Your task to perform on an android device: toggle data saver in the chrome app Image 0: 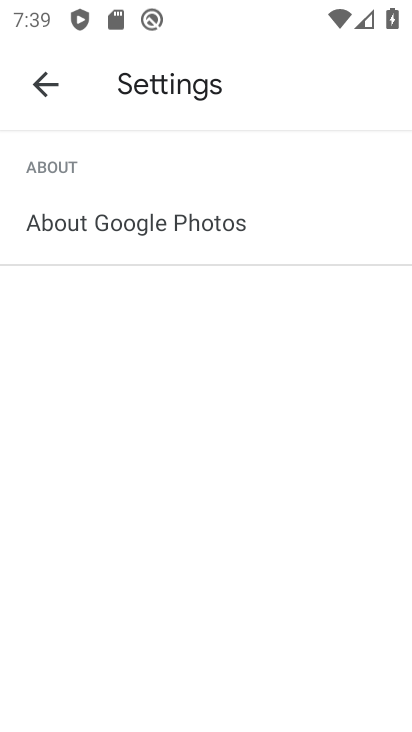
Step 0: press home button
Your task to perform on an android device: toggle data saver in the chrome app Image 1: 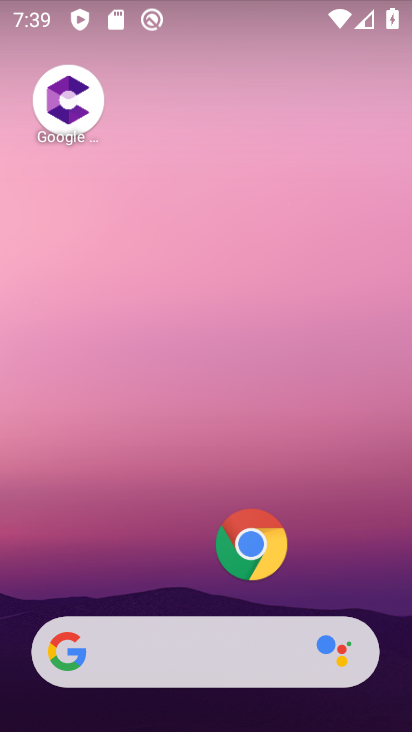
Step 1: click (253, 566)
Your task to perform on an android device: toggle data saver in the chrome app Image 2: 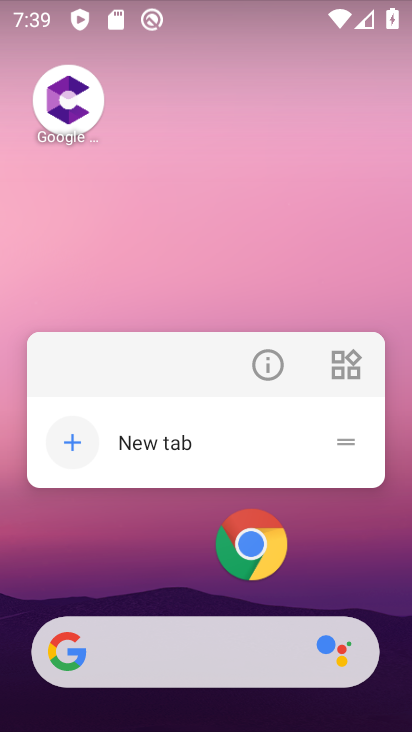
Step 2: click (249, 531)
Your task to perform on an android device: toggle data saver in the chrome app Image 3: 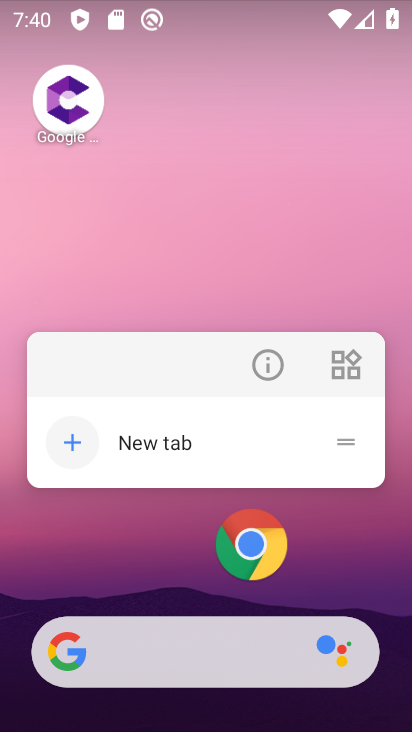
Step 3: click (248, 543)
Your task to perform on an android device: toggle data saver in the chrome app Image 4: 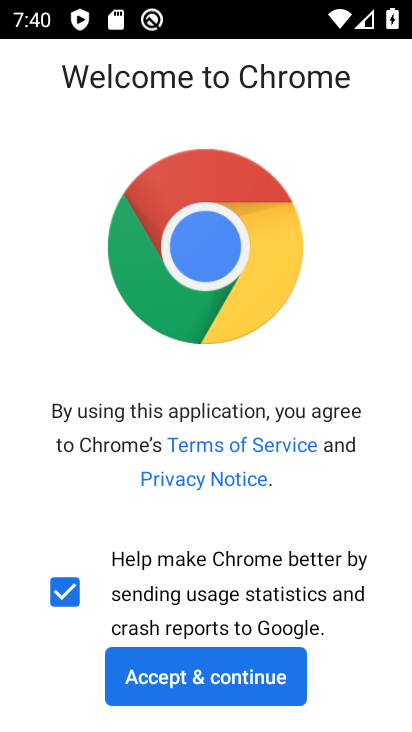
Step 4: click (248, 688)
Your task to perform on an android device: toggle data saver in the chrome app Image 5: 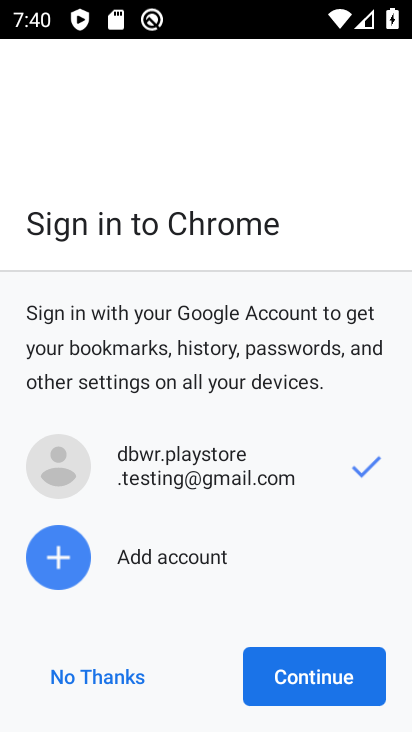
Step 5: click (309, 671)
Your task to perform on an android device: toggle data saver in the chrome app Image 6: 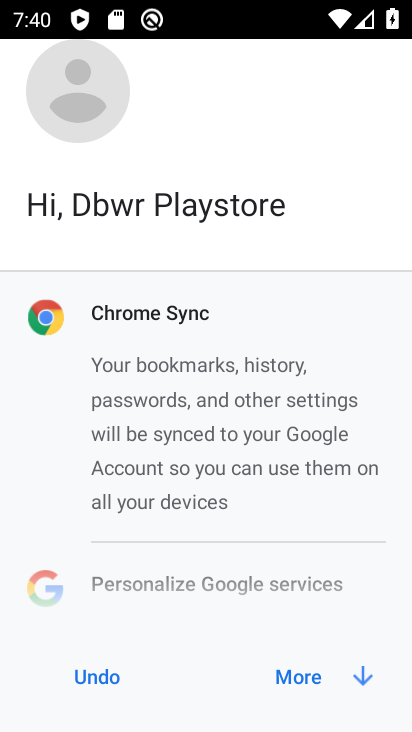
Step 6: click (309, 671)
Your task to perform on an android device: toggle data saver in the chrome app Image 7: 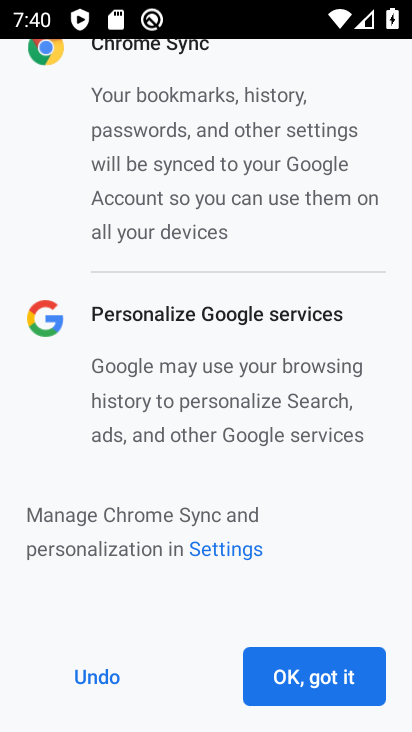
Step 7: click (309, 671)
Your task to perform on an android device: toggle data saver in the chrome app Image 8: 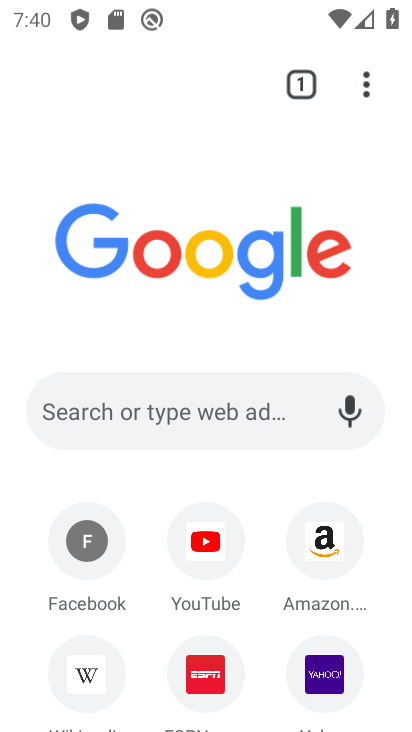
Step 8: click (369, 90)
Your task to perform on an android device: toggle data saver in the chrome app Image 9: 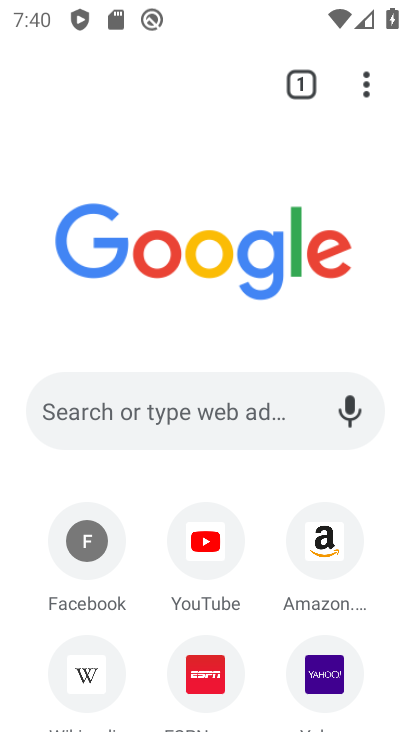
Step 9: click (368, 81)
Your task to perform on an android device: toggle data saver in the chrome app Image 10: 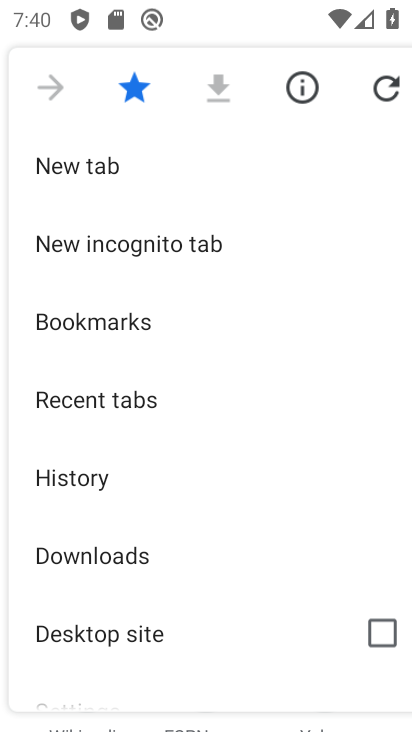
Step 10: drag from (85, 591) to (129, 192)
Your task to perform on an android device: toggle data saver in the chrome app Image 11: 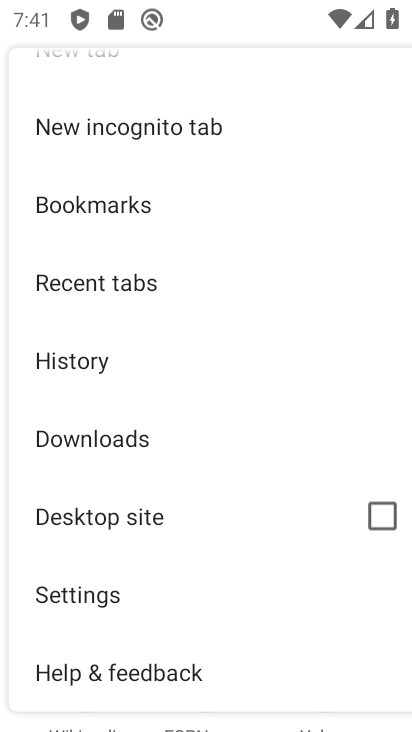
Step 11: click (83, 592)
Your task to perform on an android device: toggle data saver in the chrome app Image 12: 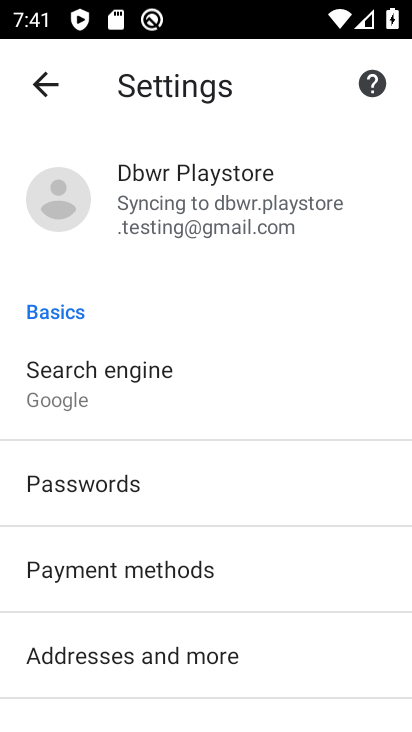
Step 12: drag from (81, 596) to (103, 282)
Your task to perform on an android device: toggle data saver in the chrome app Image 13: 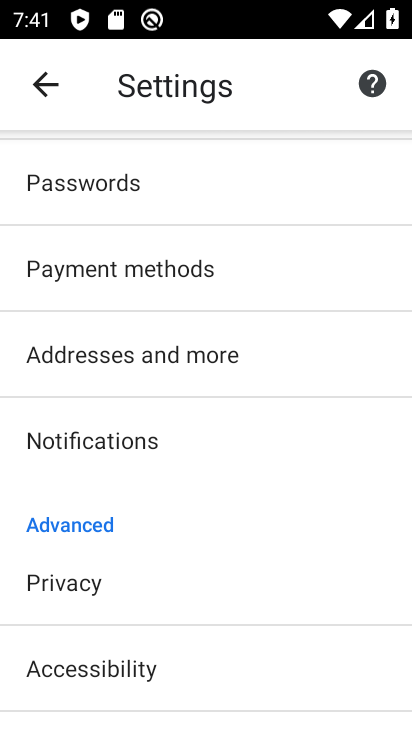
Step 13: drag from (113, 635) to (211, 139)
Your task to perform on an android device: toggle data saver in the chrome app Image 14: 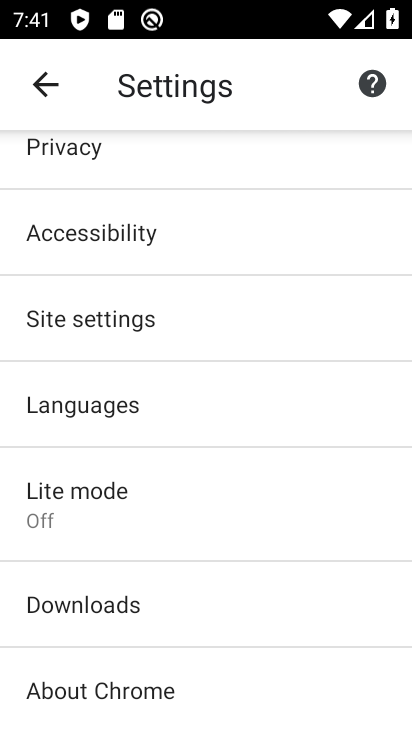
Step 14: click (73, 516)
Your task to perform on an android device: toggle data saver in the chrome app Image 15: 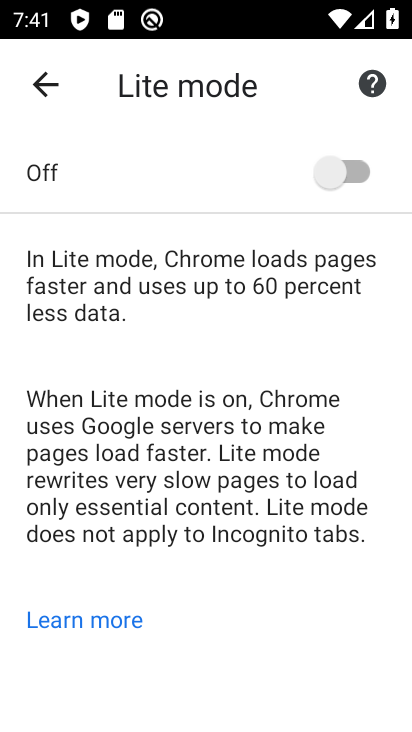
Step 15: click (319, 172)
Your task to perform on an android device: toggle data saver in the chrome app Image 16: 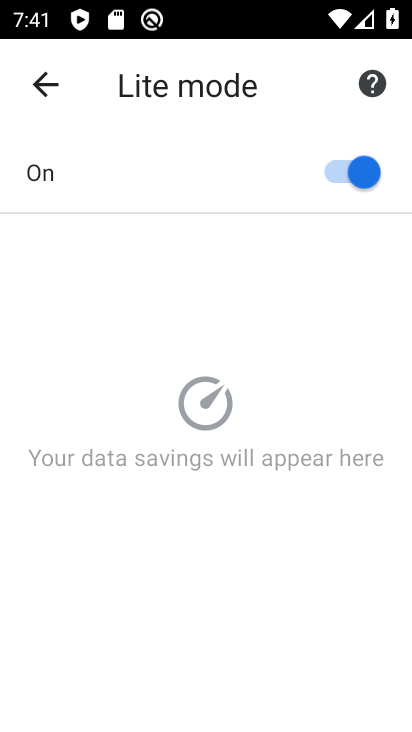
Step 16: task complete